Your task to perform on an android device: add a contact in the contacts app Image 0: 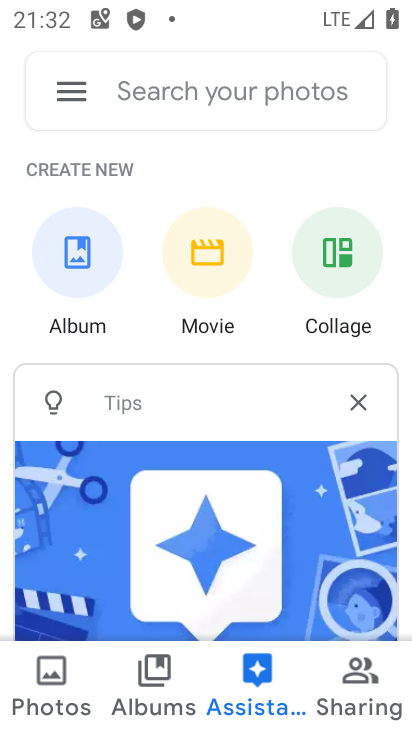
Step 0: press back button
Your task to perform on an android device: add a contact in the contacts app Image 1: 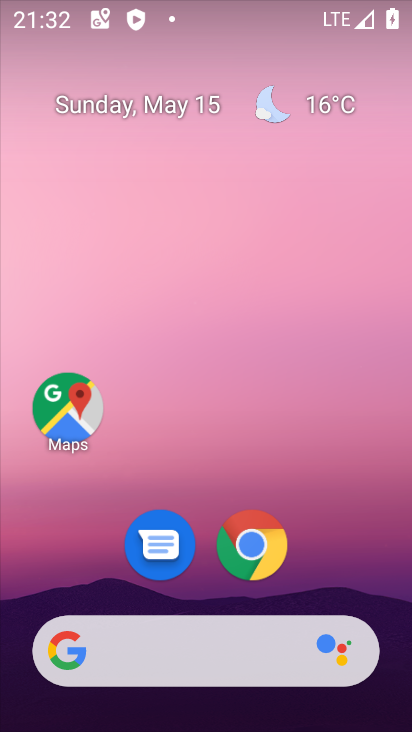
Step 1: drag from (332, 556) to (212, 104)
Your task to perform on an android device: add a contact in the contacts app Image 2: 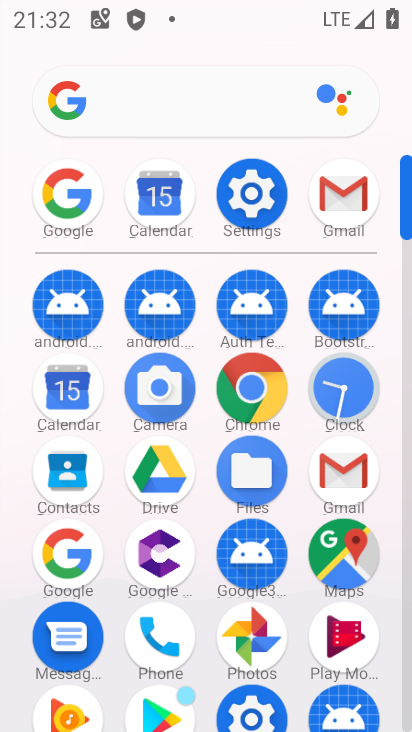
Step 2: click (65, 474)
Your task to perform on an android device: add a contact in the contacts app Image 3: 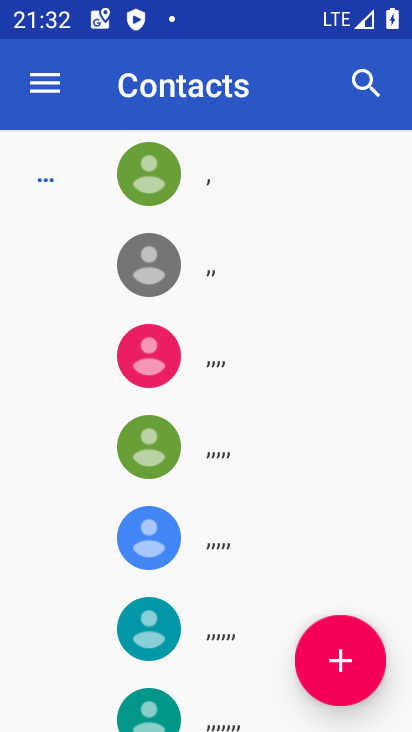
Step 3: click (340, 657)
Your task to perform on an android device: add a contact in the contacts app Image 4: 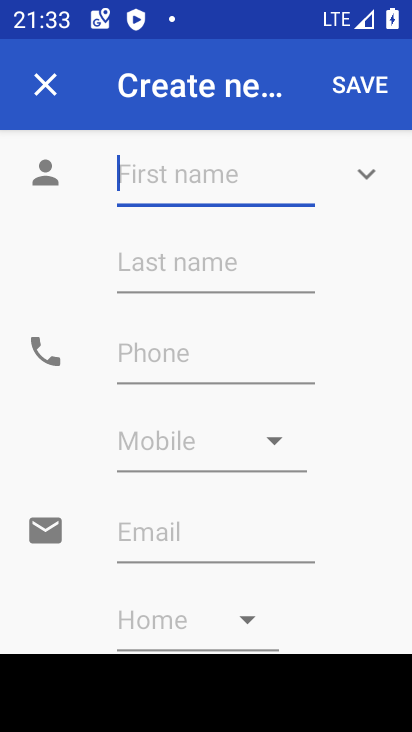
Step 4: type "Rajashree Dhar"
Your task to perform on an android device: add a contact in the contacts app Image 5: 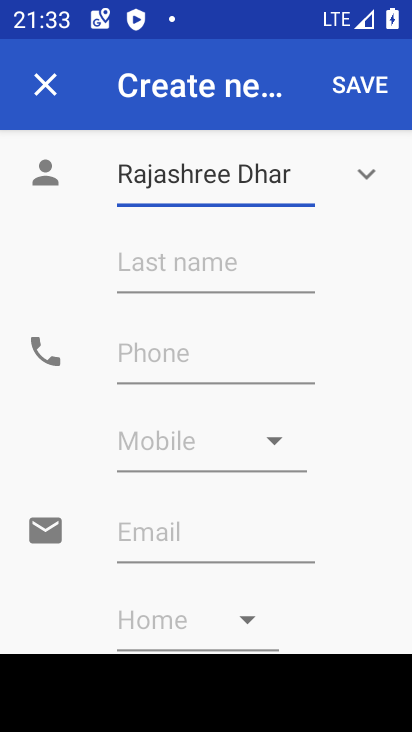
Step 5: click (225, 255)
Your task to perform on an android device: add a contact in the contacts app Image 6: 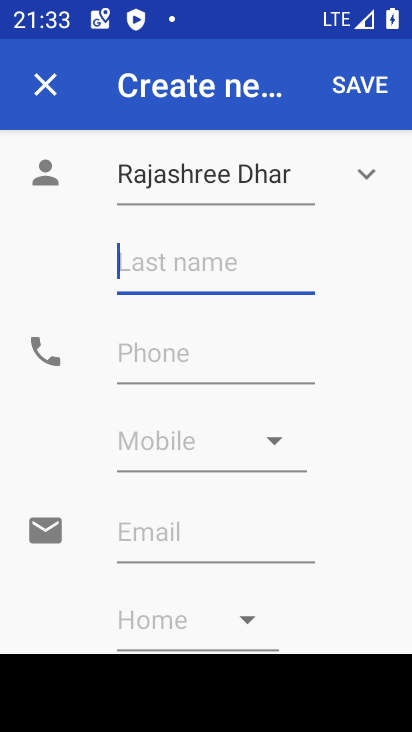
Step 6: type "Upadhyay"
Your task to perform on an android device: add a contact in the contacts app Image 7: 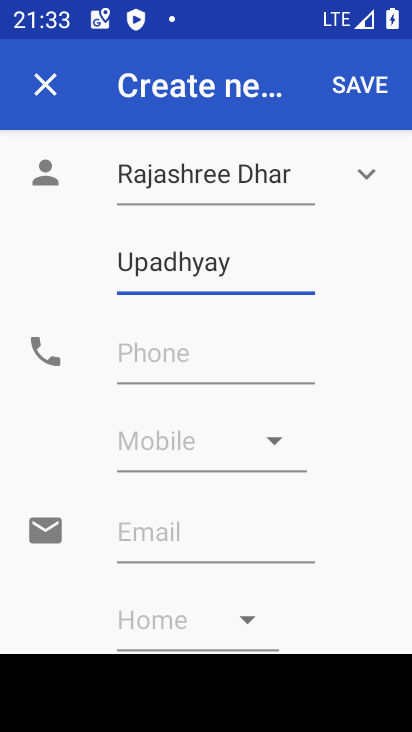
Step 7: click (207, 371)
Your task to perform on an android device: add a contact in the contacts app Image 8: 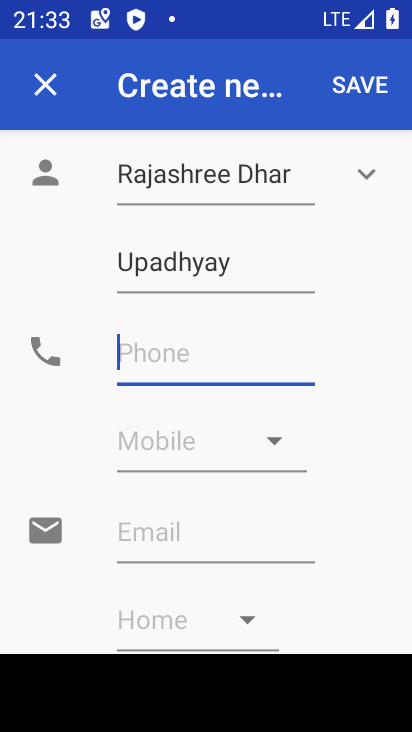
Step 8: type "0996623745"
Your task to perform on an android device: add a contact in the contacts app Image 9: 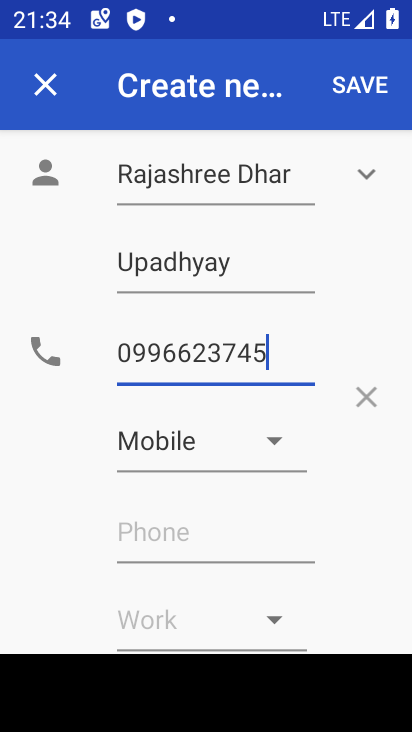
Step 9: click (363, 85)
Your task to perform on an android device: add a contact in the contacts app Image 10: 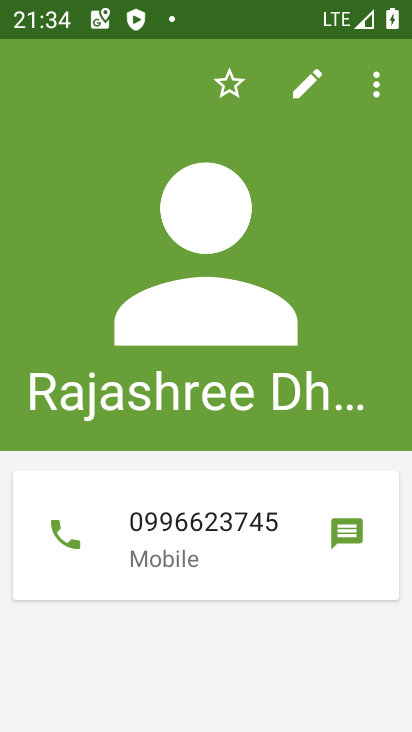
Step 10: task complete